Your task to perform on an android device: Toggle the flashlight Image 0: 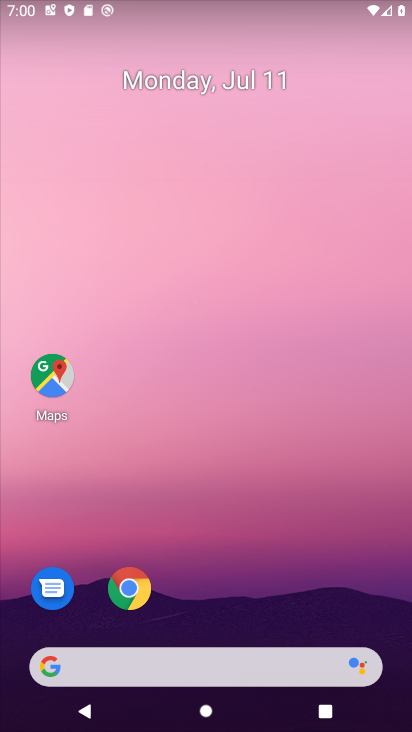
Step 0: drag from (367, 615) to (177, 107)
Your task to perform on an android device: Toggle the flashlight Image 1: 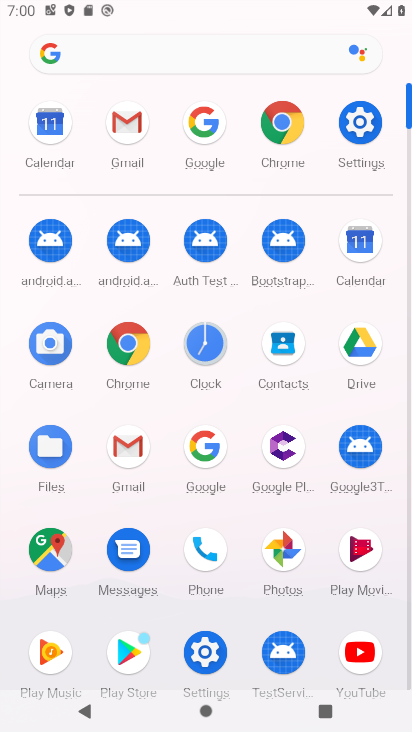
Step 1: click (355, 134)
Your task to perform on an android device: Toggle the flashlight Image 2: 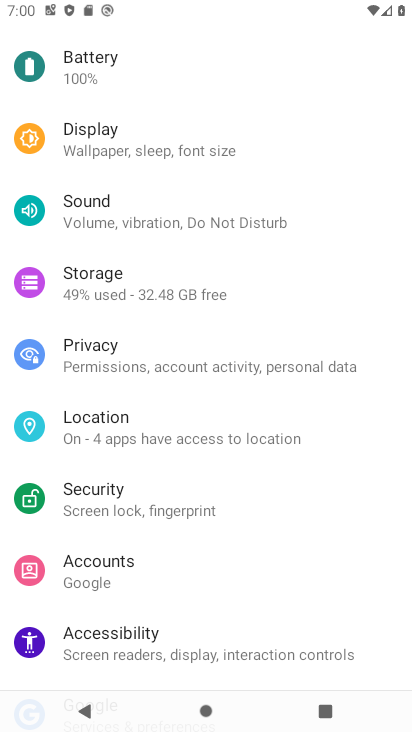
Step 2: task complete